Your task to perform on an android device: delete a single message in the gmail app Image 0: 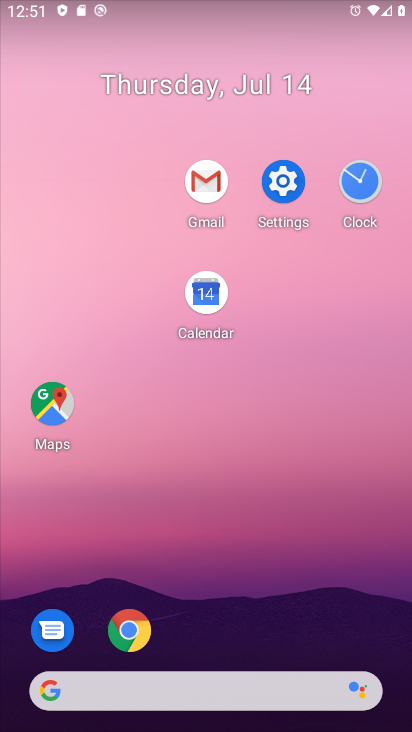
Step 0: click (213, 204)
Your task to perform on an android device: delete a single message in the gmail app Image 1: 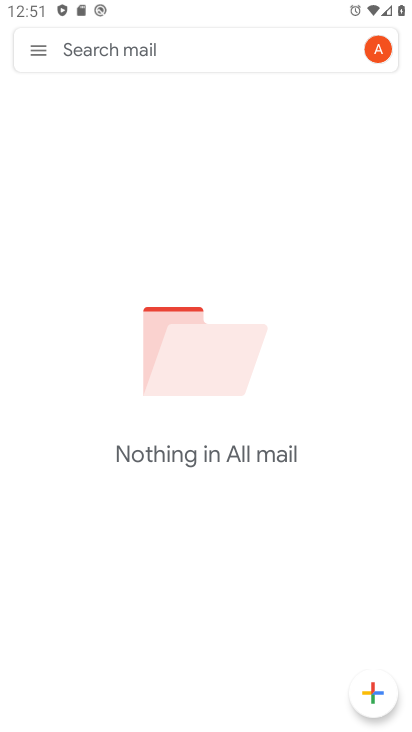
Step 1: task complete